Your task to perform on an android device: turn on data saver in the chrome app Image 0: 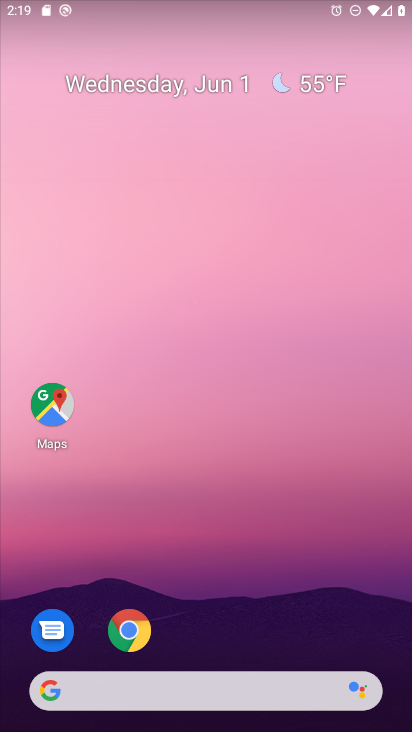
Step 0: drag from (218, 670) to (257, 113)
Your task to perform on an android device: turn on data saver in the chrome app Image 1: 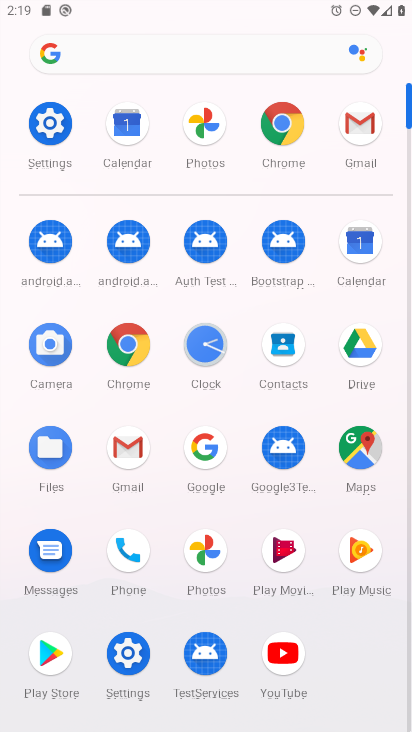
Step 1: click (116, 344)
Your task to perform on an android device: turn on data saver in the chrome app Image 2: 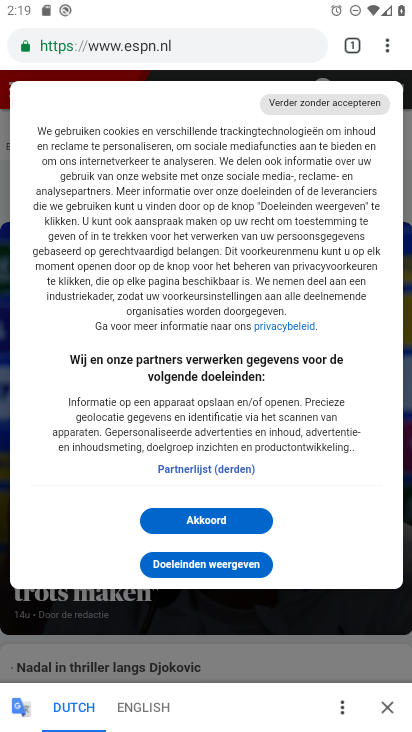
Step 2: drag from (375, 40) to (236, 547)
Your task to perform on an android device: turn on data saver in the chrome app Image 3: 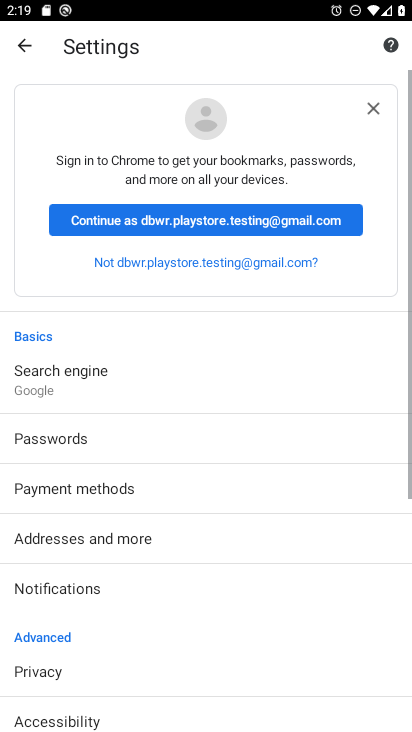
Step 3: drag from (199, 554) to (221, 276)
Your task to perform on an android device: turn on data saver in the chrome app Image 4: 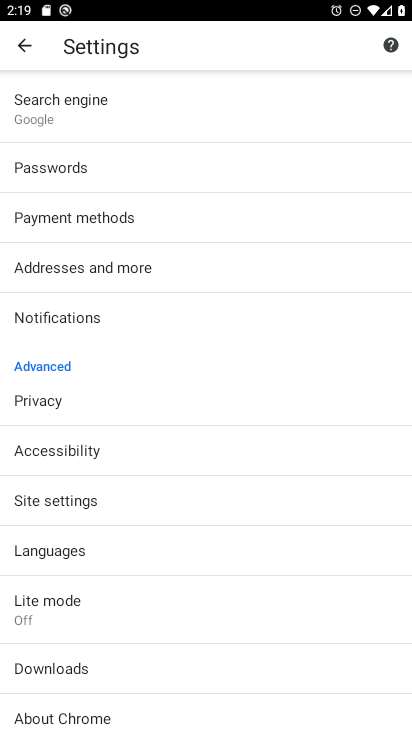
Step 4: click (81, 611)
Your task to perform on an android device: turn on data saver in the chrome app Image 5: 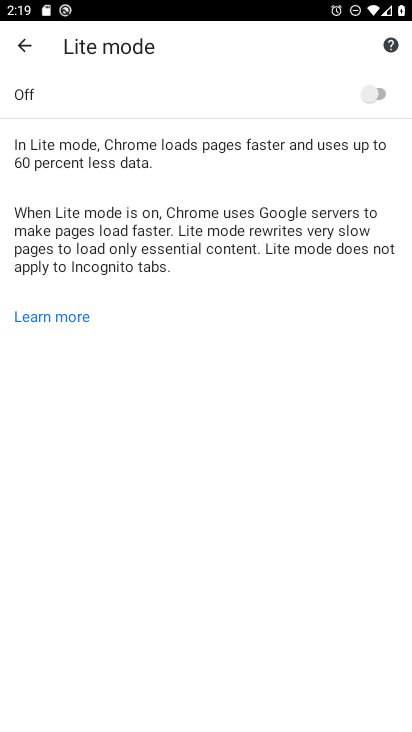
Step 5: click (372, 87)
Your task to perform on an android device: turn on data saver in the chrome app Image 6: 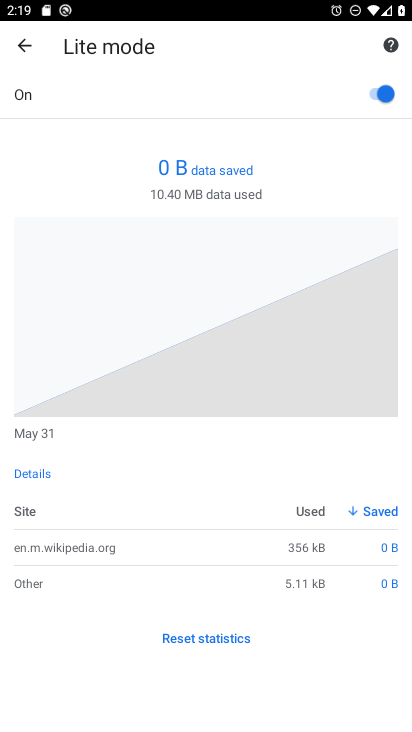
Step 6: task complete